Your task to perform on an android device: Go to internet settings Image 0: 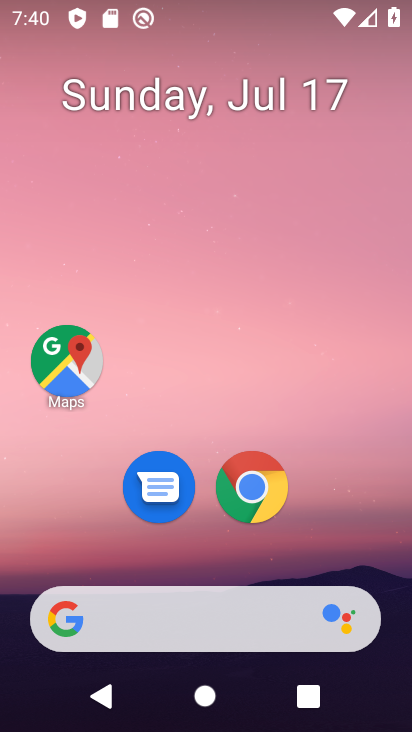
Step 0: drag from (104, 561) to (204, 63)
Your task to perform on an android device: Go to internet settings Image 1: 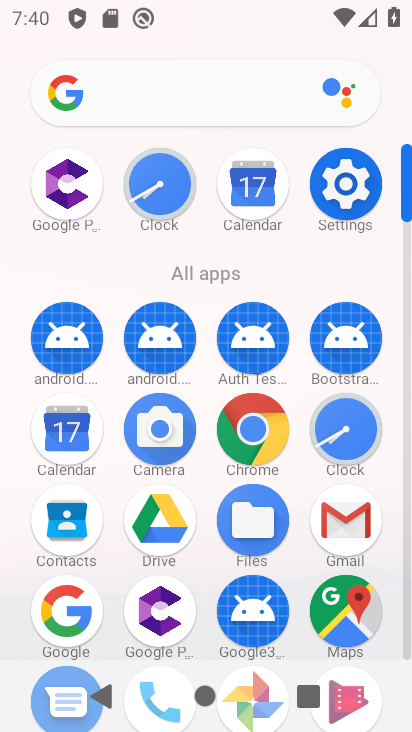
Step 1: click (351, 201)
Your task to perform on an android device: Go to internet settings Image 2: 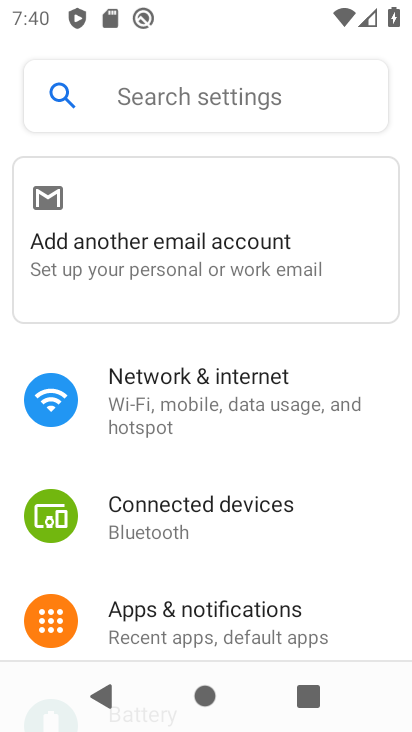
Step 2: click (184, 410)
Your task to perform on an android device: Go to internet settings Image 3: 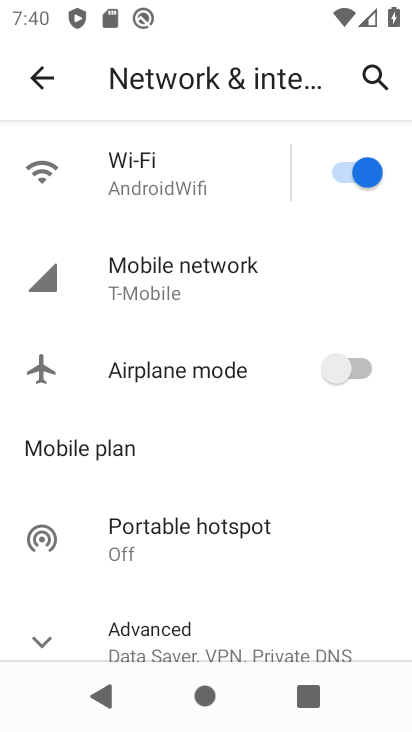
Step 3: task complete